Your task to perform on an android device: turn off javascript in the chrome app Image 0: 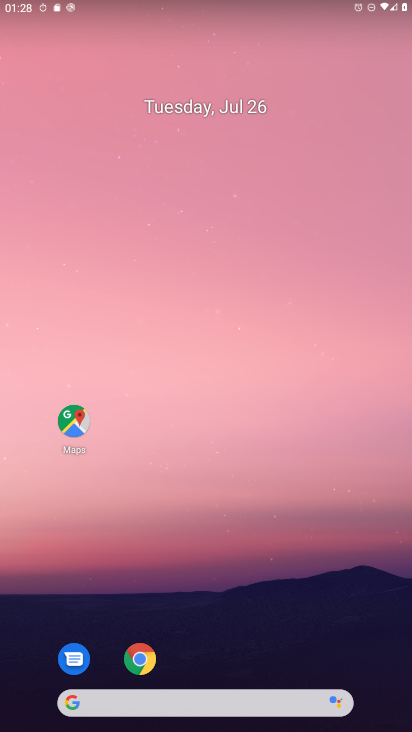
Step 0: click (143, 654)
Your task to perform on an android device: turn off javascript in the chrome app Image 1: 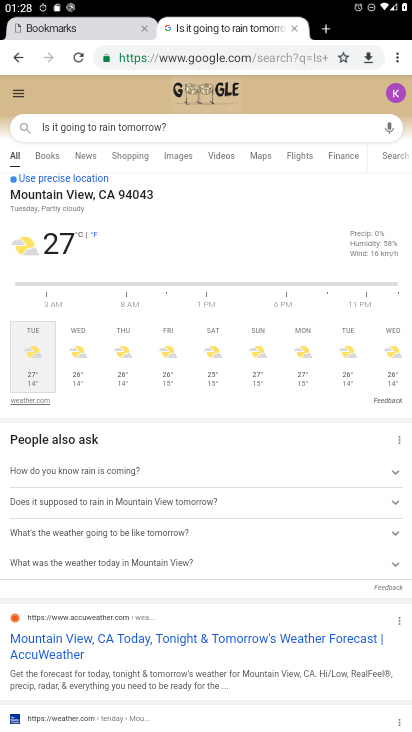
Step 1: drag from (399, 52) to (287, 393)
Your task to perform on an android device: turn off javascript in the chrome app Image 2: 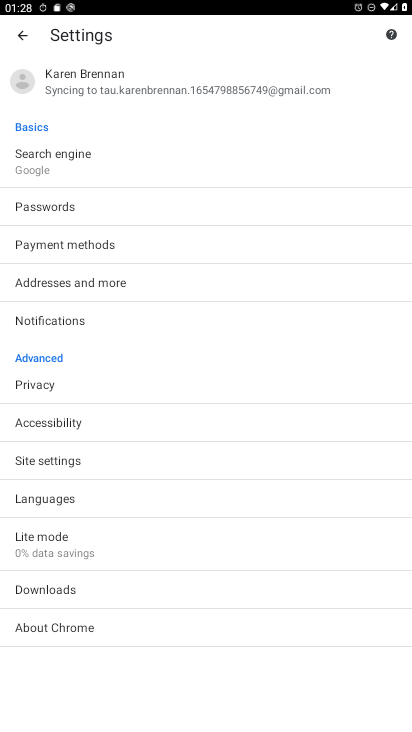
Step 2: click (45, 457)
Your task to perform on an android device: turn off javascript in the chrome app Image 3: 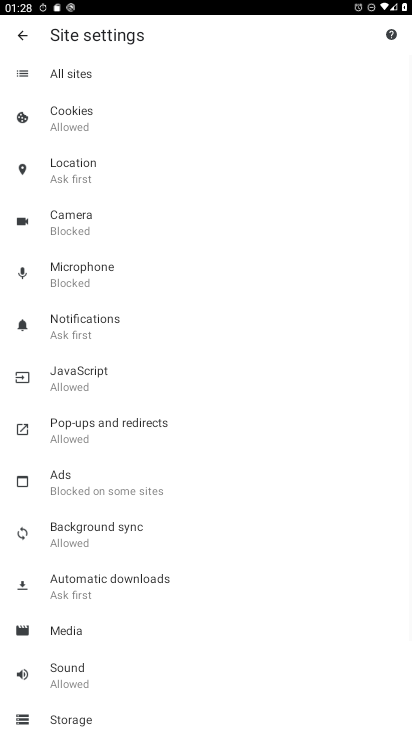
Step 3: click (91, 367)
Your task to perform on an android device: turn off javascript in the chrome app Image 4: 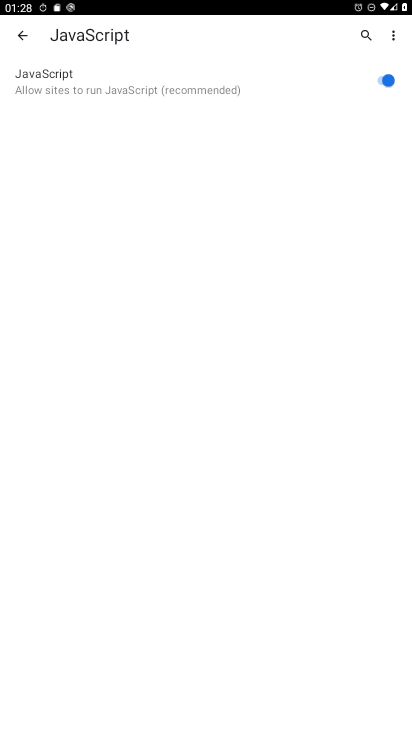
Step 4: click (274, 84)
Your task to perform on an android device: turn off javascript in the chrome app Image 5: 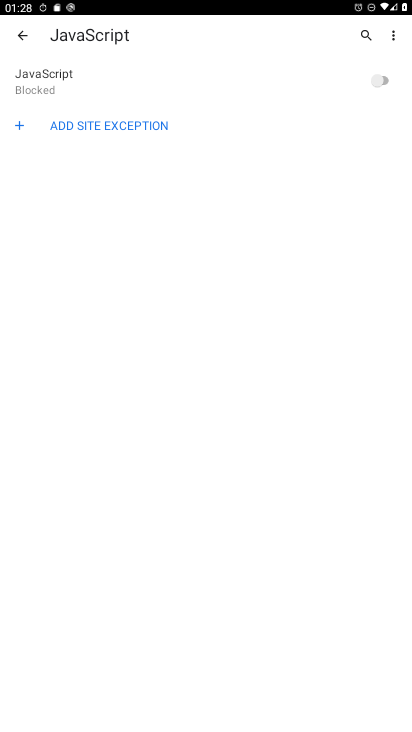
Step 5: task complete